Your task to perform on an android device: Open accessibility settings Image 0: 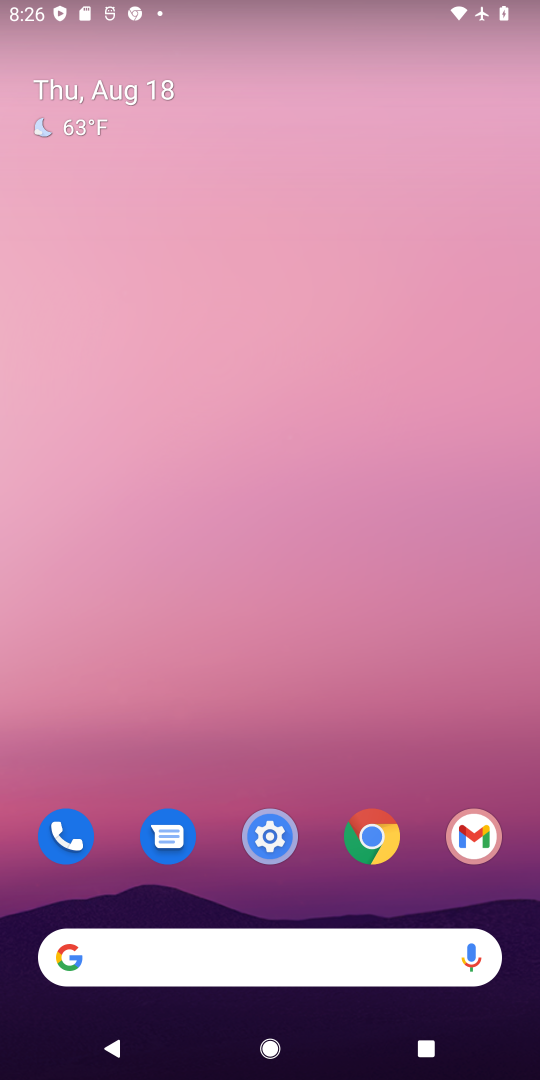
Step 0: drag from (423, 787) to (349, 2)
Your task to perform on an android device: Open accessibility settings Image 1: 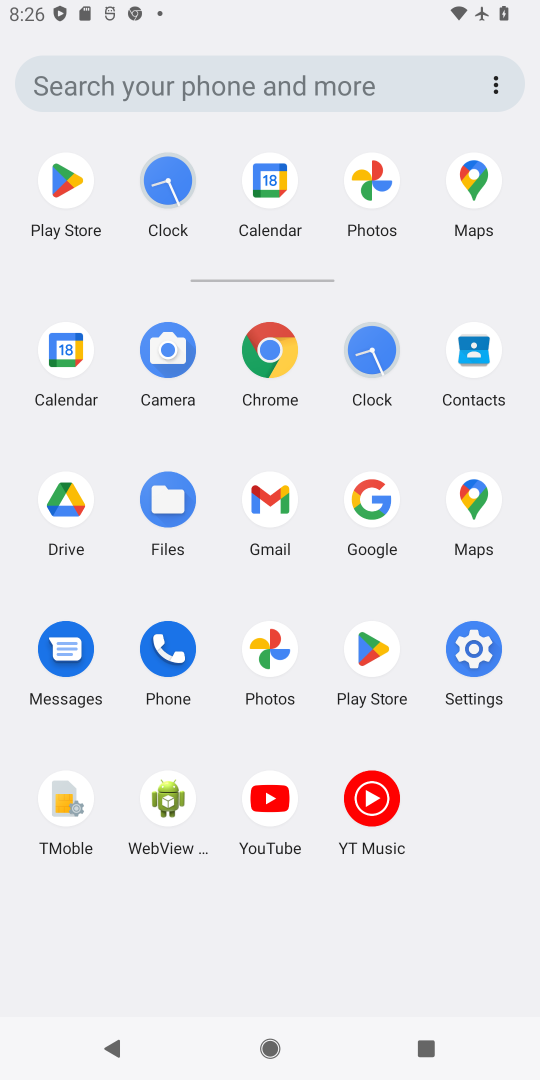
Step 1: click (464, 652)
Your task to perform on an android device: Open accessibility settings Image 2: 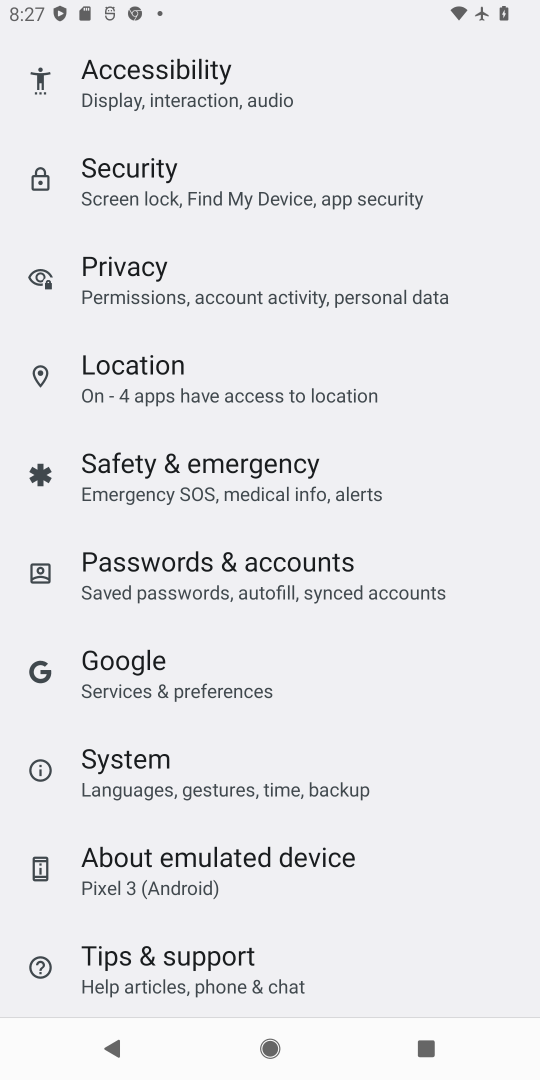
Step 2: click (179, 92)
Your task to perform on an android device: Open accessibility settings Image 3: 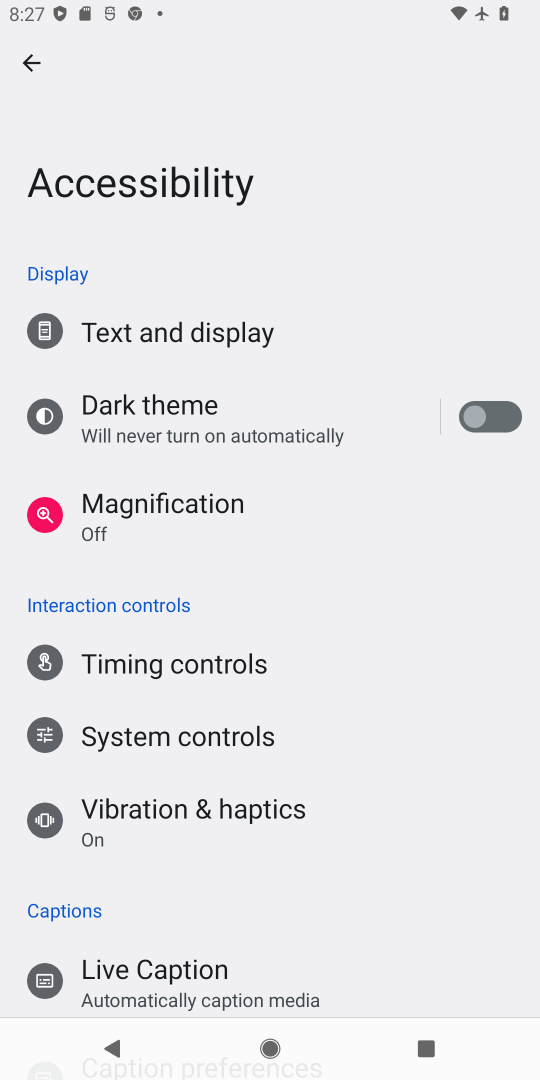
Step 3: task complete